Your task to perform on an android device: Go to Maps Image 0: 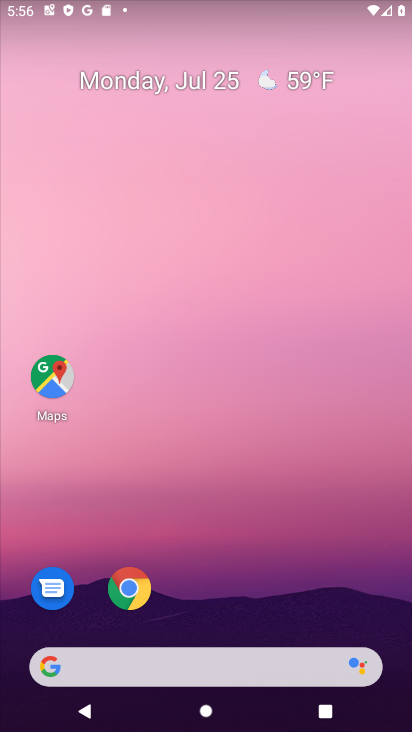
Step 0: click (46, 371)
Your task to perform on an android device: Go to Maps Image 1: 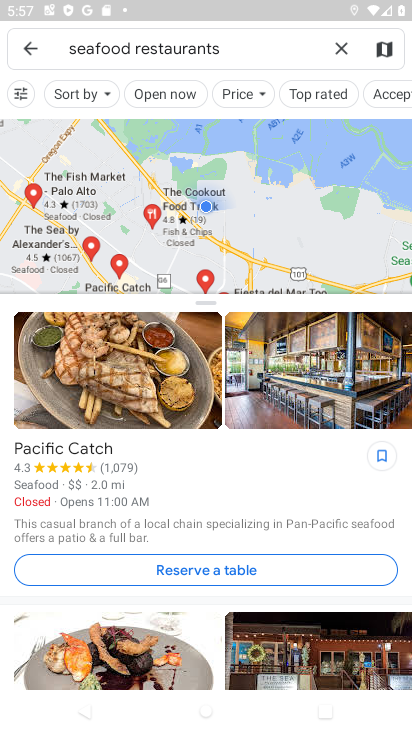
Step 1: task complete